Your task to perform on an android device: Open Chrome and go to the settings page Image 0: 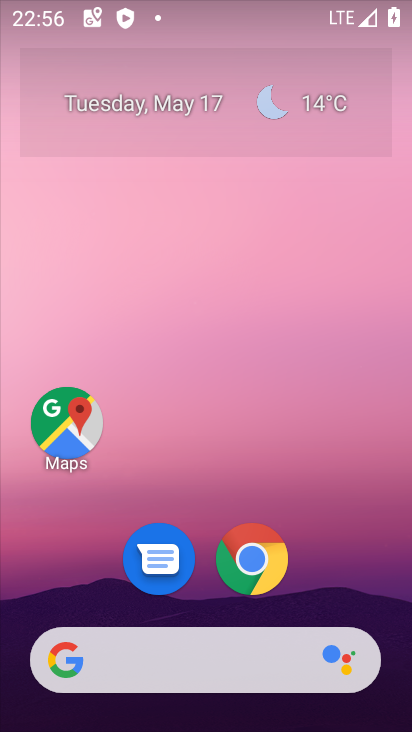
Step 0: drag from (337, 560) to (359, 107)
Your task to perform on an android device: Open Chrome and go to the settings page Image 1: 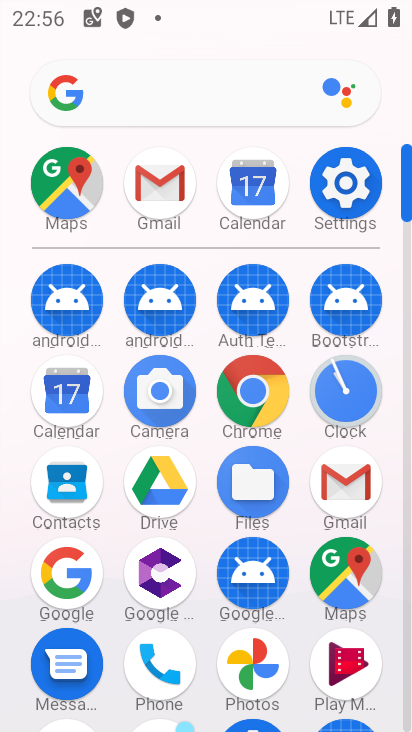
Step 1: click (241, 389)
Your task to perform on an android device: Open Chrome and go to the settings page Image 2: 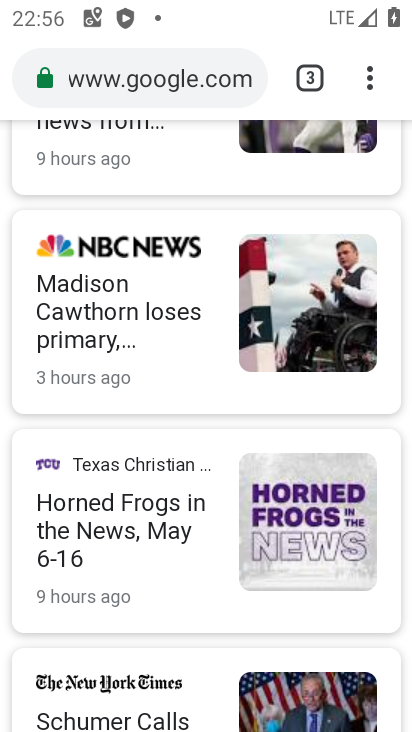
Step 2: task complete